Your task to perform on an android device: Open Google Chrome and click the shortcut for Amazon.com Image 0: 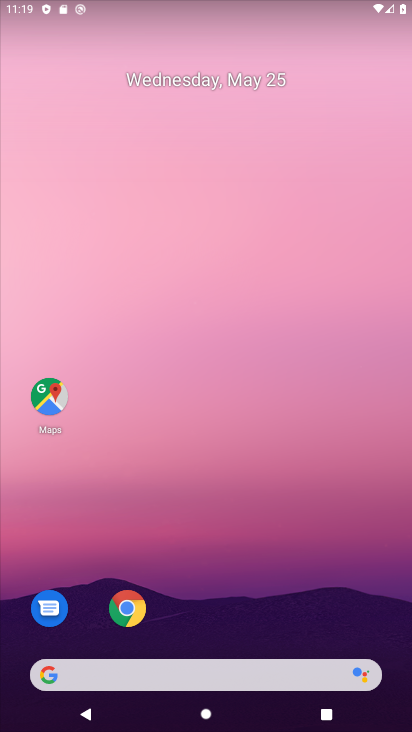
Step 0: click (124, 605)
Your task to perform on an android device: Open Google Chrome and click the shortcut for Amazon.com Image 1: 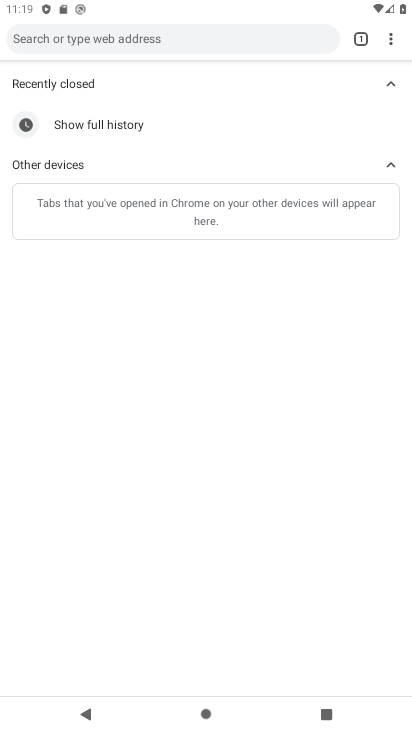
Step 1: click (363, 42)
Your task to perform on an android device: Open Google Chrome and click the shortcut for Amazon.com Image 2: 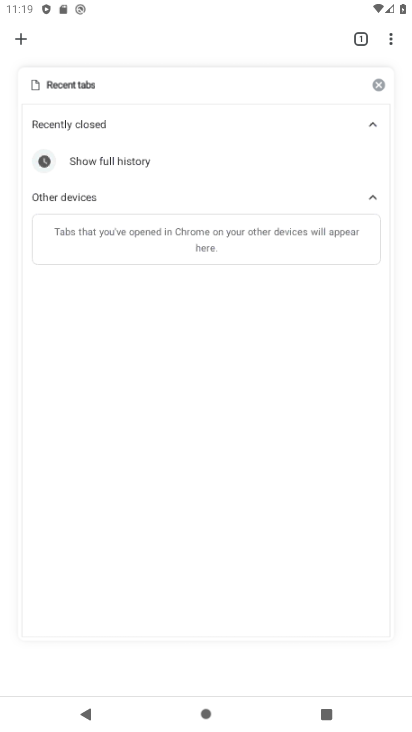
Step 2: click (363, 42)
Your task to perform on an android device: Open Google Chrome and click the shortcut for Amazon.com Image 3: 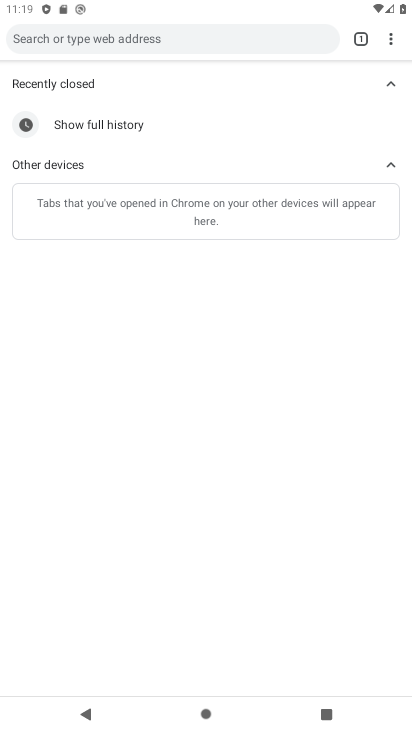
Step 3: click (363, 42)
Your task to perform on an android device: Open Google Chrome and click the shortcut for Amazon.com Image 4: 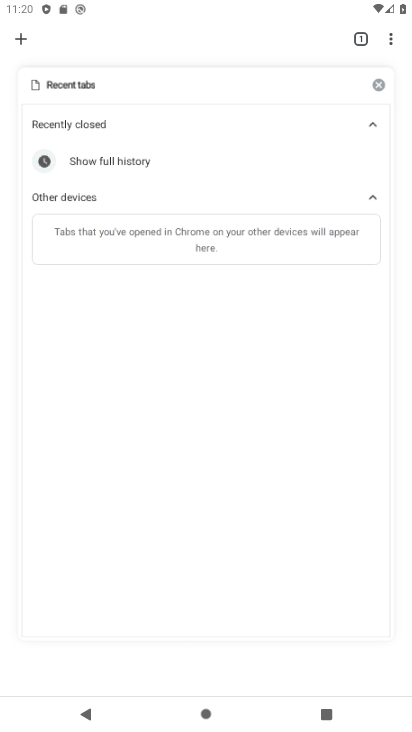
Step 4: click (18, 41)
Your task to perform on an android device: Open Google Chrome and click the shortcut for Amazon.com Image 5: 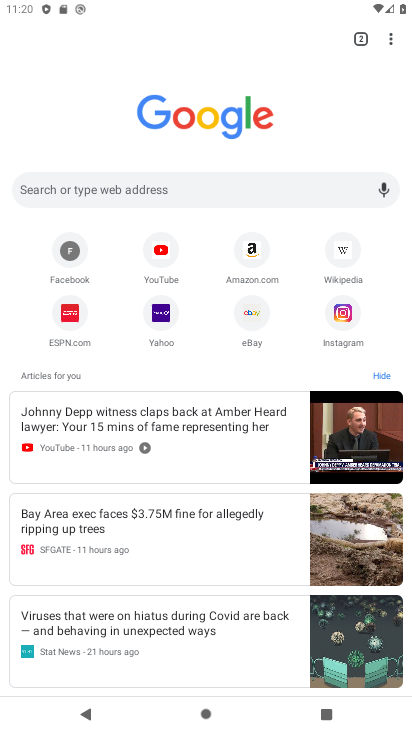
Step 5: click (254, 247)
Your task to perform on an android device: Open Google Chrome and click the shortcut for Amazon.com Image 6: 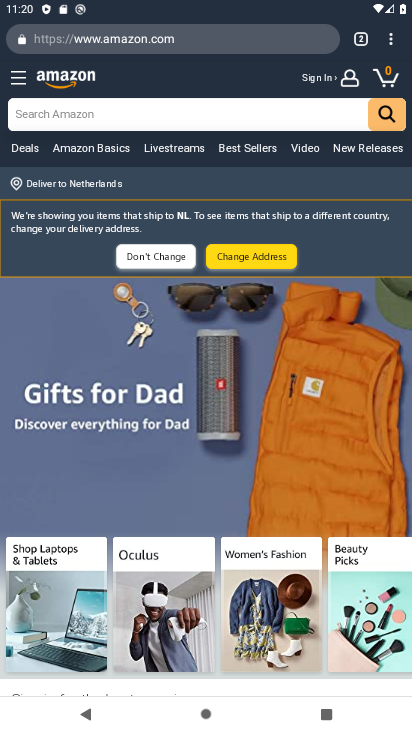
Step 6: task complete